Your task to perform on an android device: change the clock display to analog Image 0: 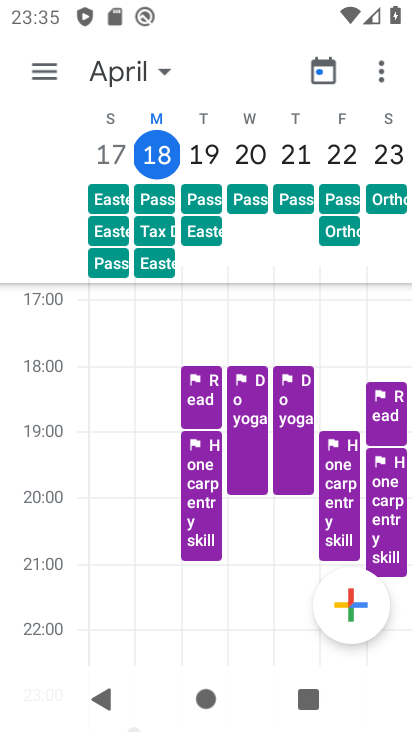
Step 0: press home button
Your task to perform on an android device: change the clock display to analog Image 1: 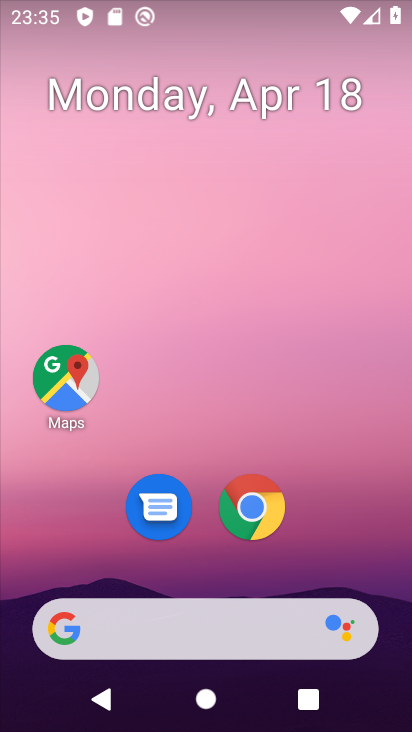
Step 1: drag from (334, 485) to (348, 107)
Your task to perform on an android device: change the clock display to analog Image 2: 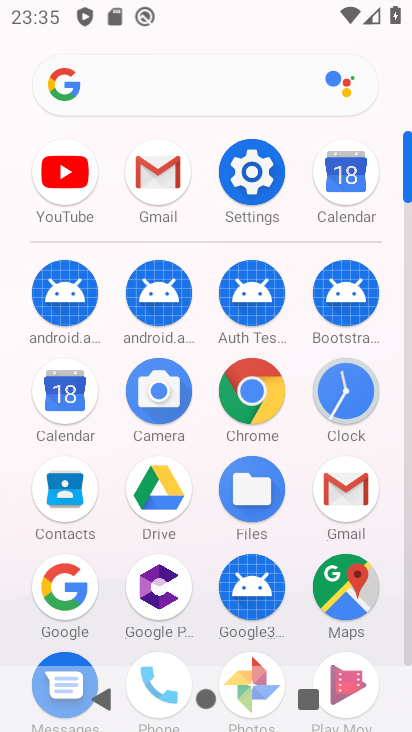
Step 2: click (340, 379)
Your task to perform on an android device: change the clock display to analog Image 3: 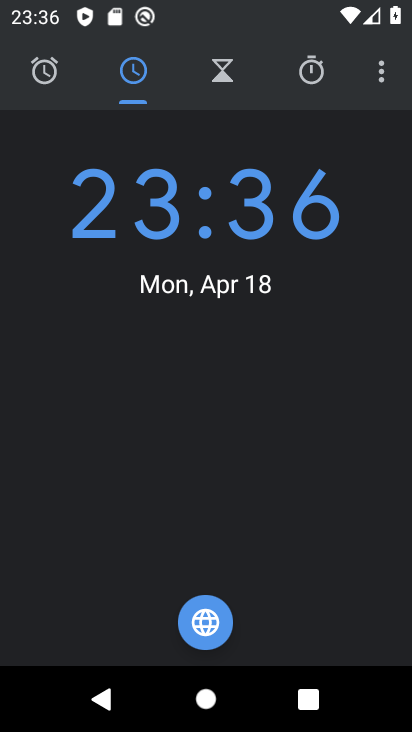
Step 3: click (381, 75)
Your task to perform on an android device: change the clock display to analog Image 4: 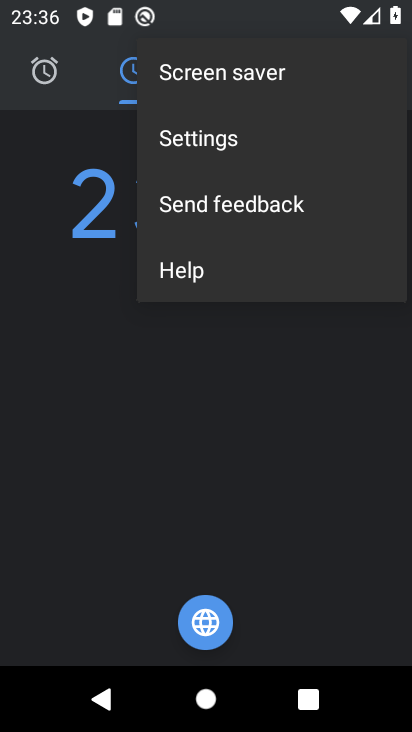
Step 4: click (301, 138)
Your task to perform on an android device: change the clock display to analog Image 5: 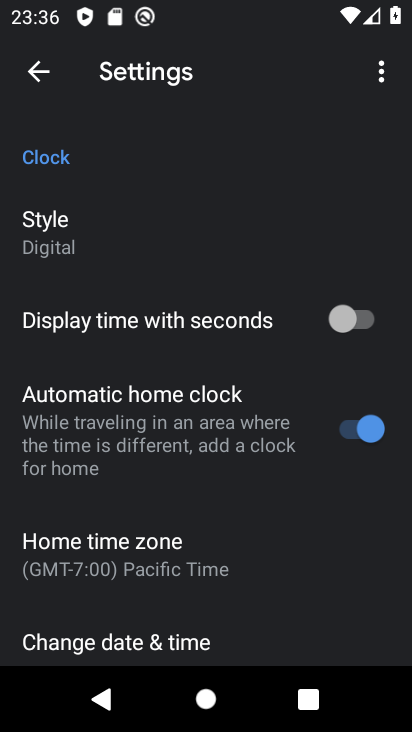
Step 5: click (69, 230)
Your task to perform on an android device: change the clock display to analog Image 6: 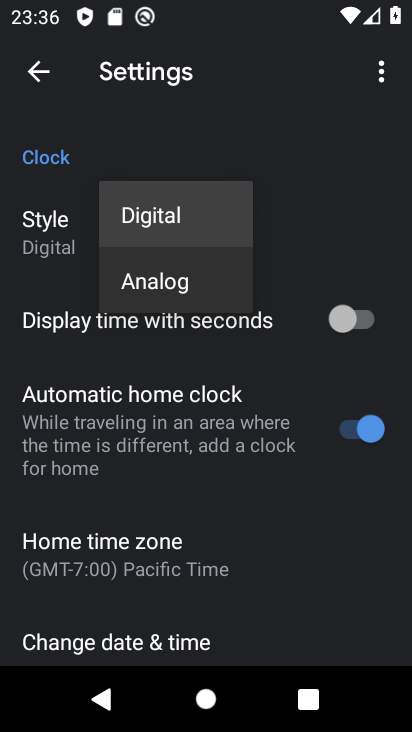
Step 6: click (130, 274)
Your task to perform on an android device: change the clock display to analog Image 7: 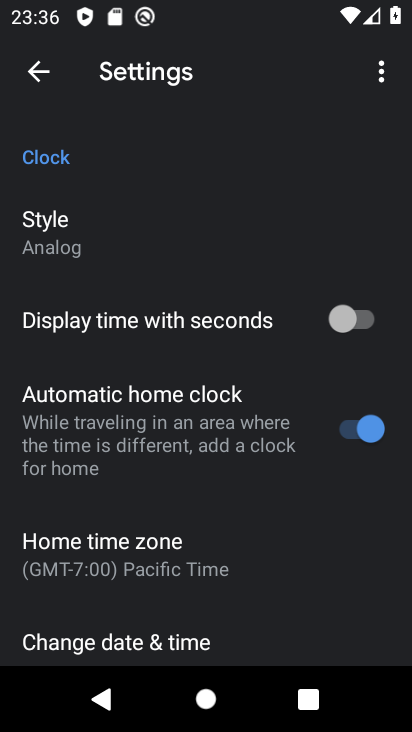
Step 7: task complete